Your task to perform on an android device: check google app version Image 0: 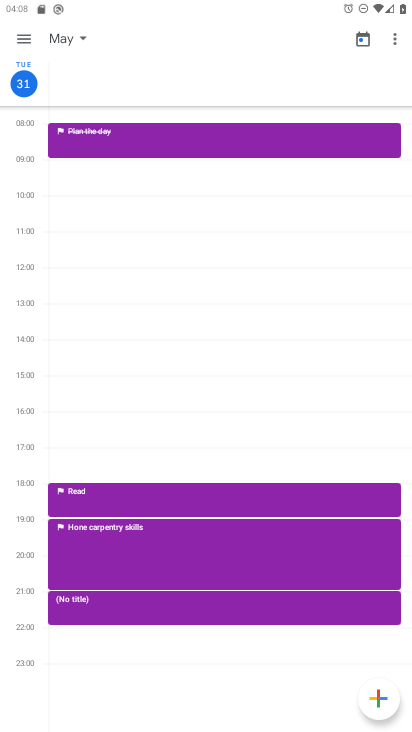
Step 0: press home button
Your task to perform on an android device: check google app version Image 1: 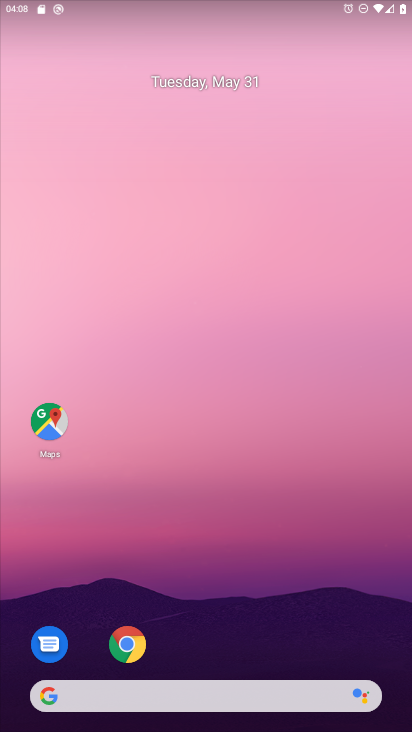
Step 1: drag from (254, 551) to (252, 39)
Your task to perform on an android device: check google app version Image 2: 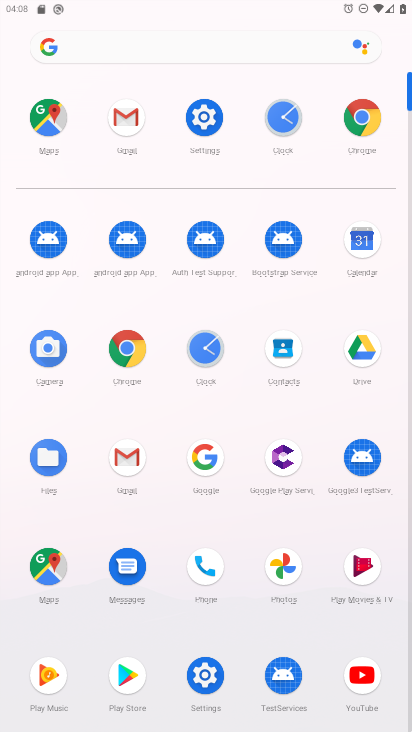
Step 2: click (204, 454)
Your task to perform on an android device: check google app version Image 3: 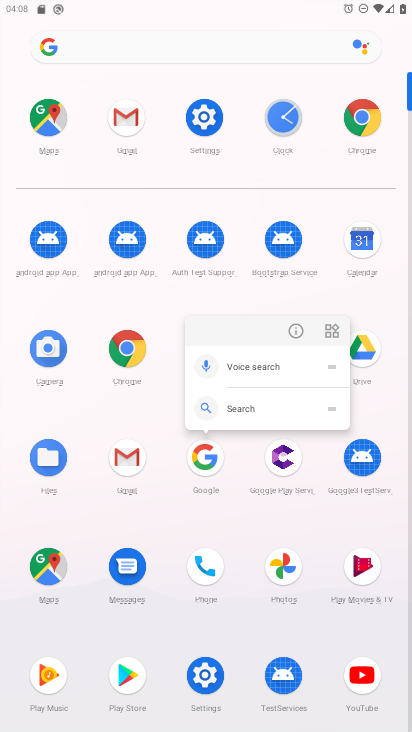
Step 3: click (294, 327)
Your task to perform on an android device: check google app version Image 4: 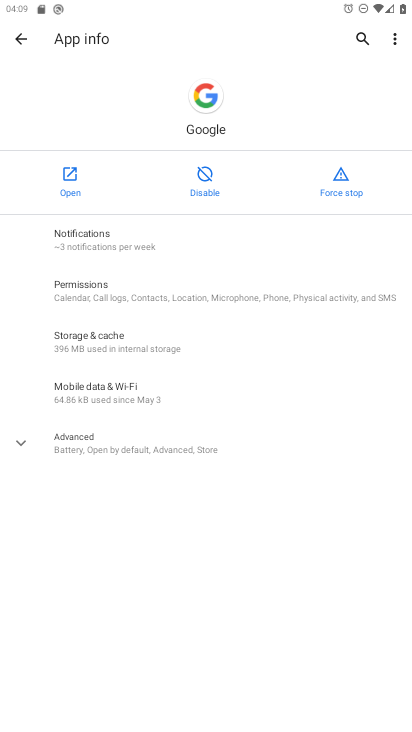
Step 4: click (133, 453)
Your task to perform on an android device: check google app version Image 5: 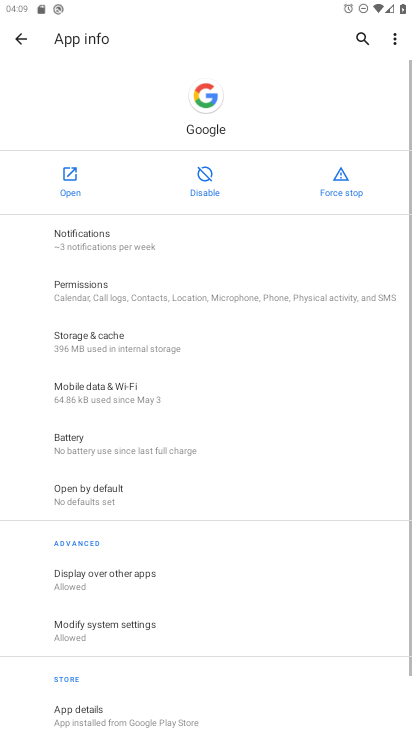
Step 5: task complete